Your task to perform on an android device: Open settings Image 0: 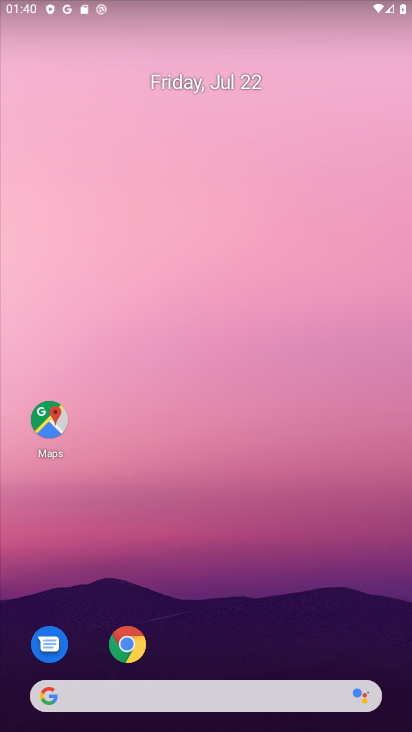
Step 0: drag from (264, 728) to (215, 115)
Your task to perform on an android device: Open settings Image 1: 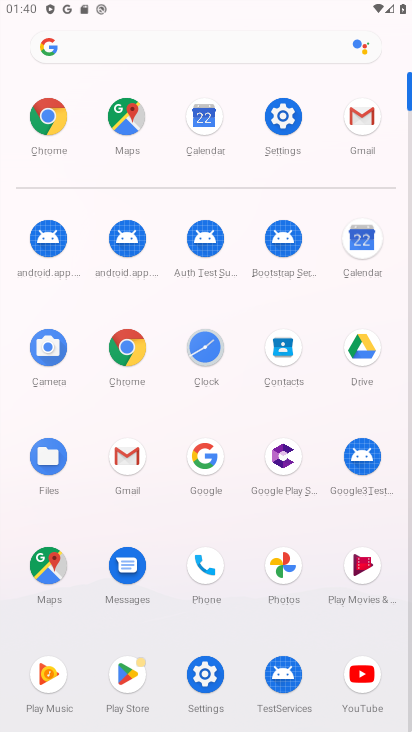
Step 1: click (290, 97)
Your task to perform on an android device: Open settings Image 2: 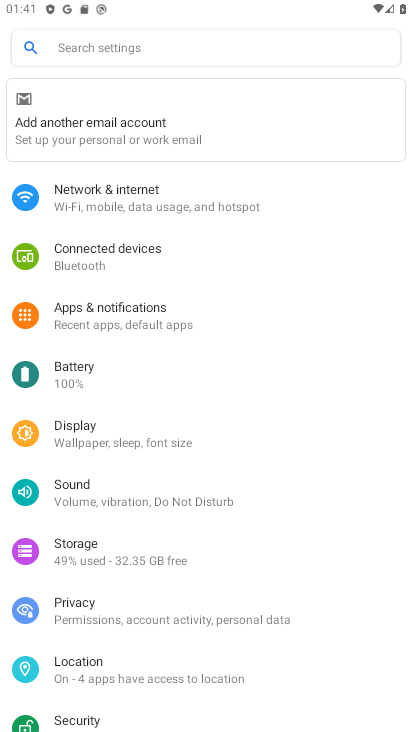
Step 2: task complete